Your task to perform on an android device: What's on the menu at Chick-fil-A? Image 0: 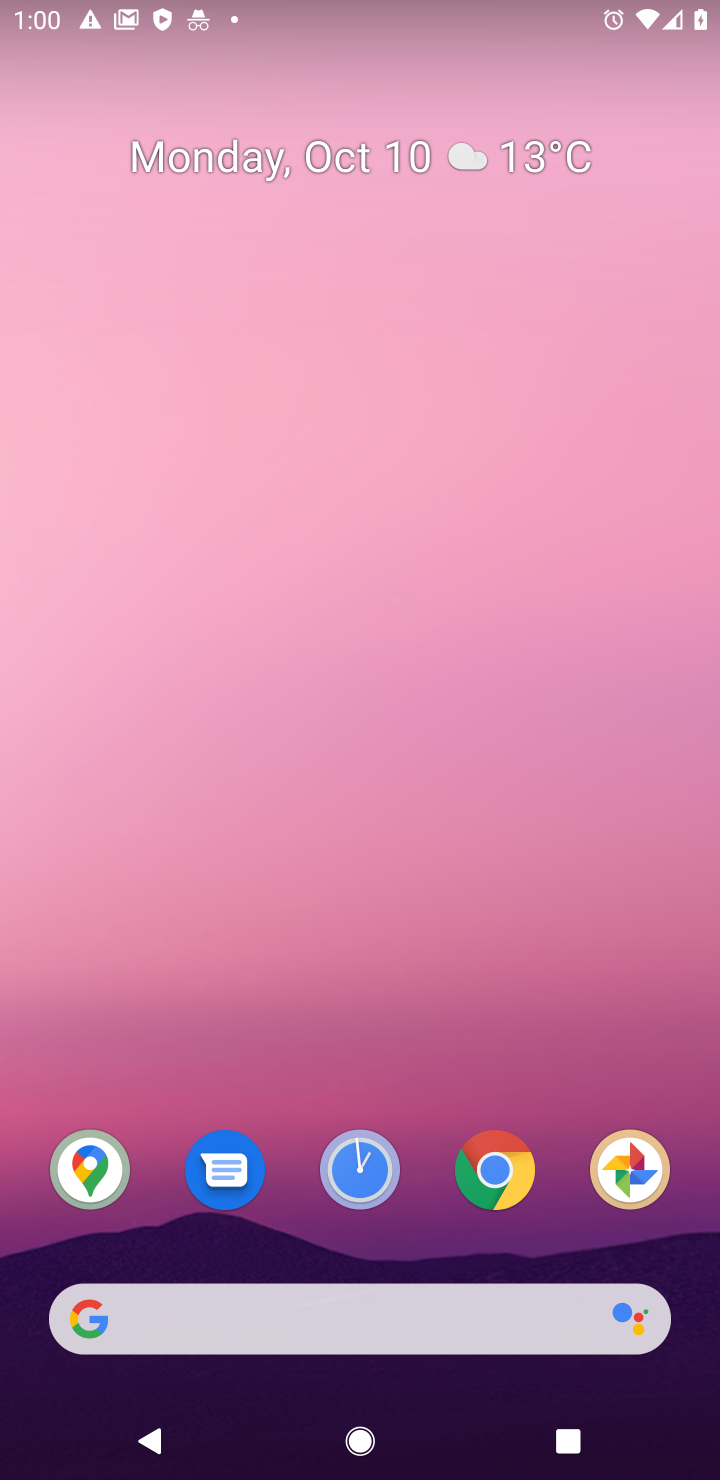
Step 0: click (505, 1176)
Your task to perform on an android device: What's on the menu at Chick-fil-A? Image 1: 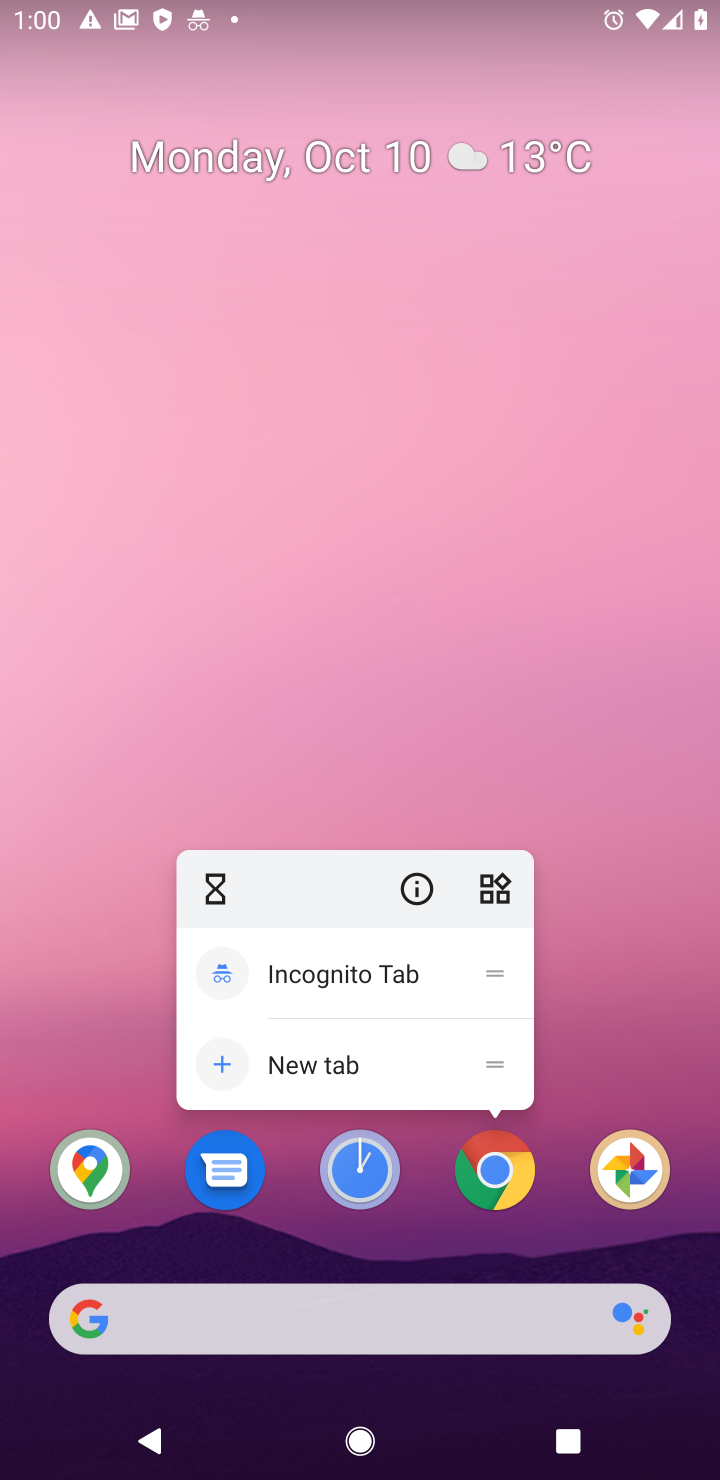
Step 1: click (505, 1176)
Your task to perform on an android device: What's on the menu at Chick-fil-A? Image 2: 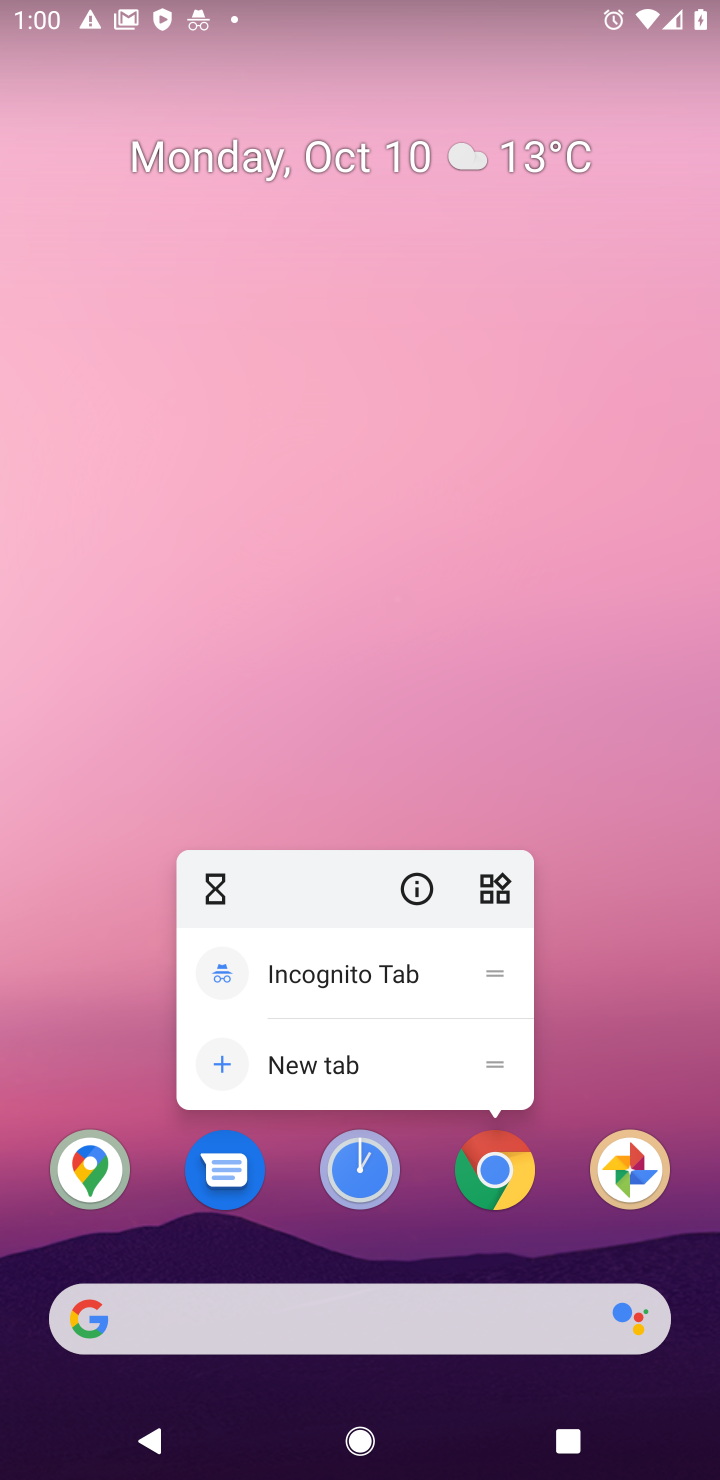
Step 2: click (505, 1176)
Your task to perform on an android device: What's on the menu at Chick-fil-A? Image 3: 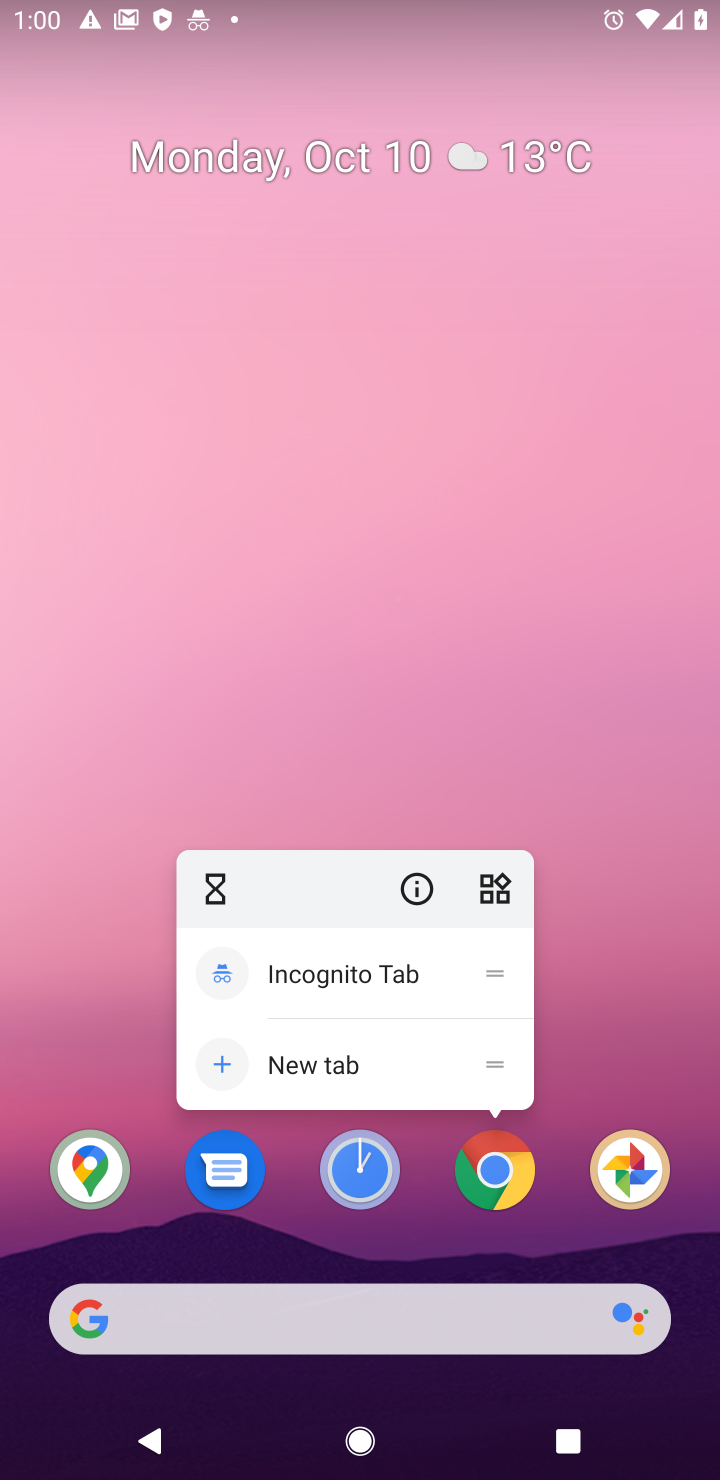
Step 3: click (506, 1190)
Your task to perform on an android device: What's on the menu at Chick-fil-A? Image 4: 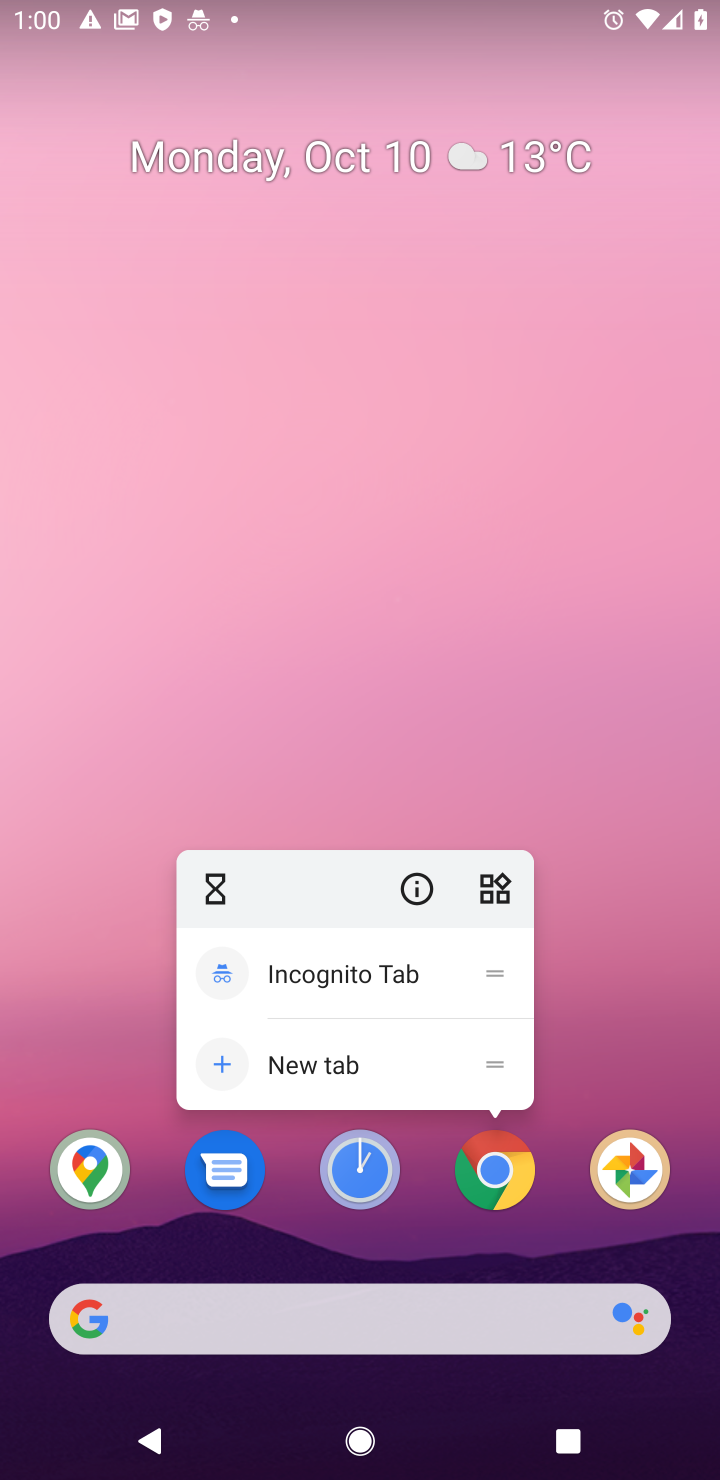
Step 4: click (506, 1190)
Your task to perform on an android device: What's on the menu at Chick-fil-A? Image 5: 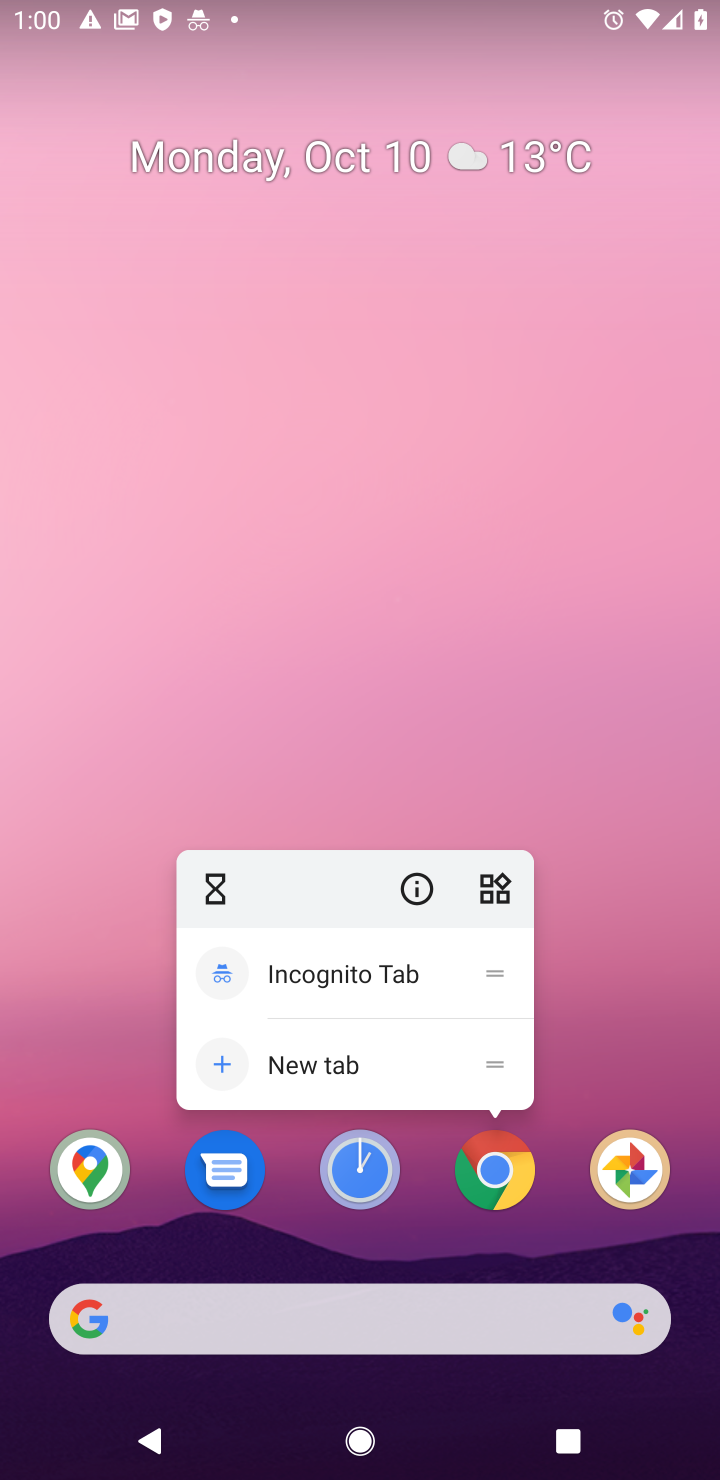
Step 5: click (490, 1176)
Your task to perform on an android device: What's on the menu at Chick-fil-A? Image 6: 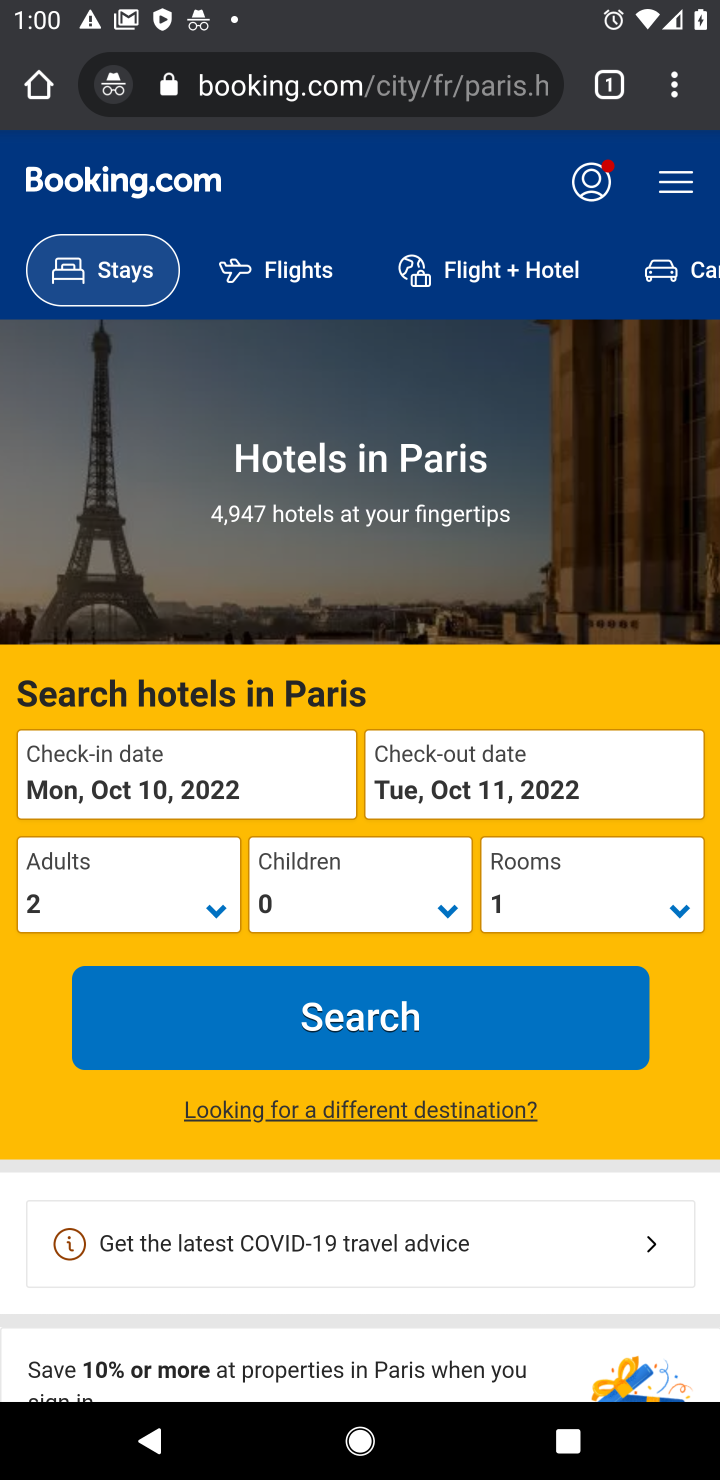
Step 6: click (305, 88)
Your task to perform on an android device: What's on the menu at Chick-fil-A? Image 7: 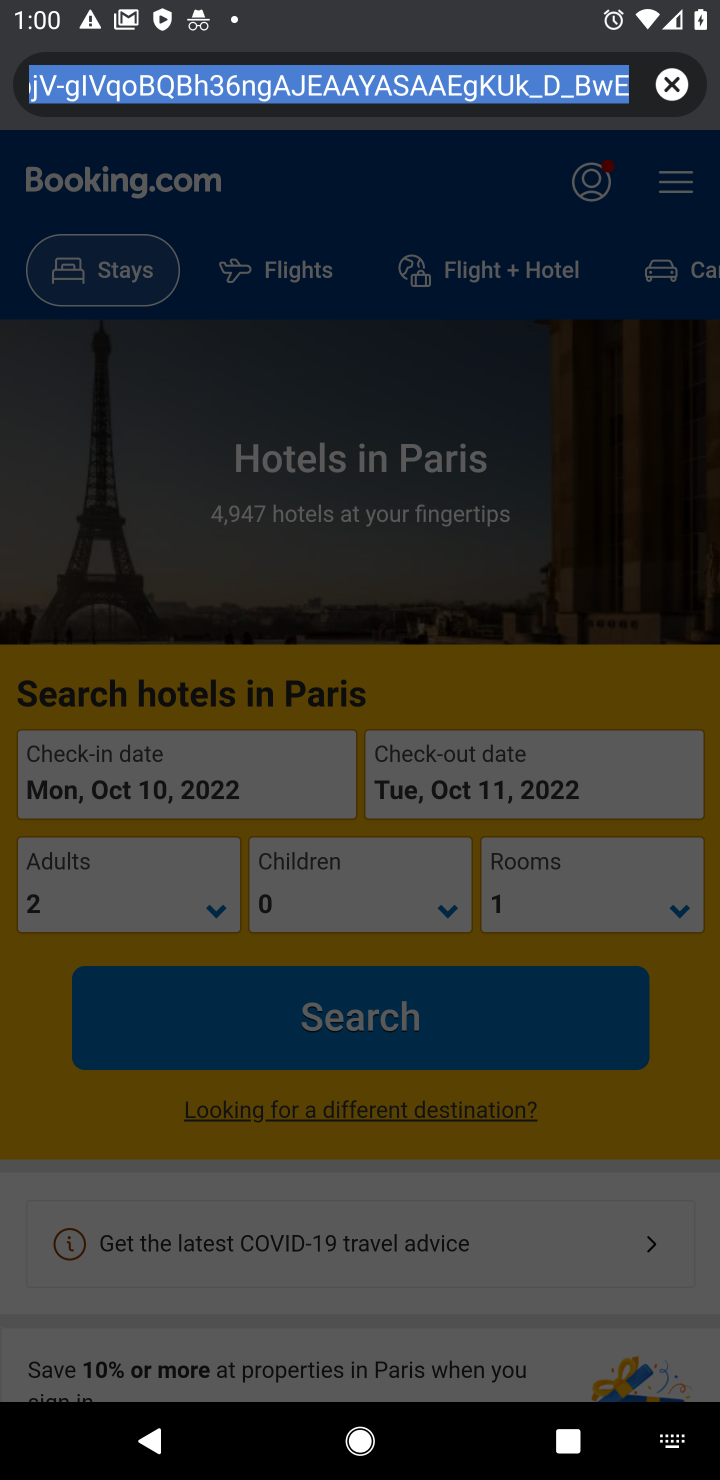
Step 7: click (669, 94)
Your task to perform on an android device: What's on the menu at Chick-fil-A? Image 8: 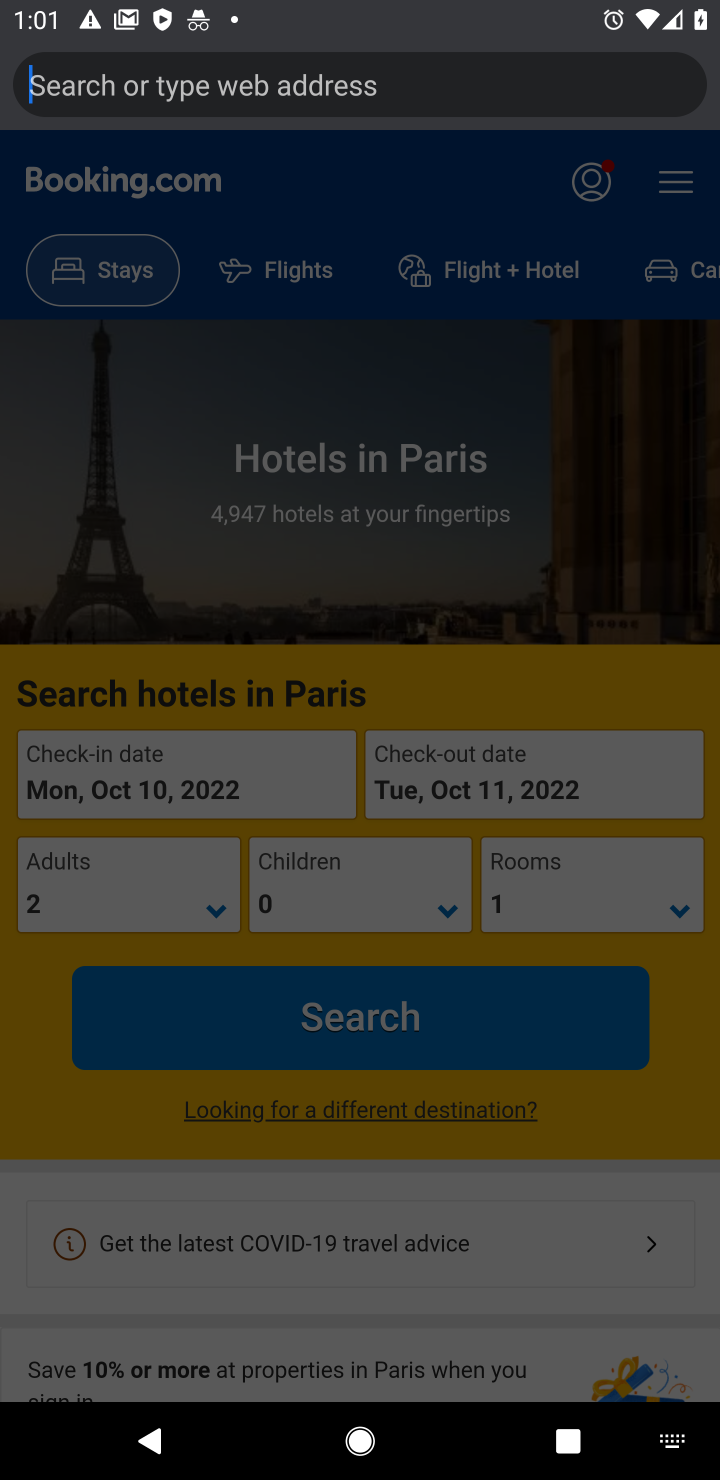
Step 8: type "whats  on the menu at Chick-fil-A?"
Your task to perform on an android device: What's on the menu at Chick-fil-A? Image 9: 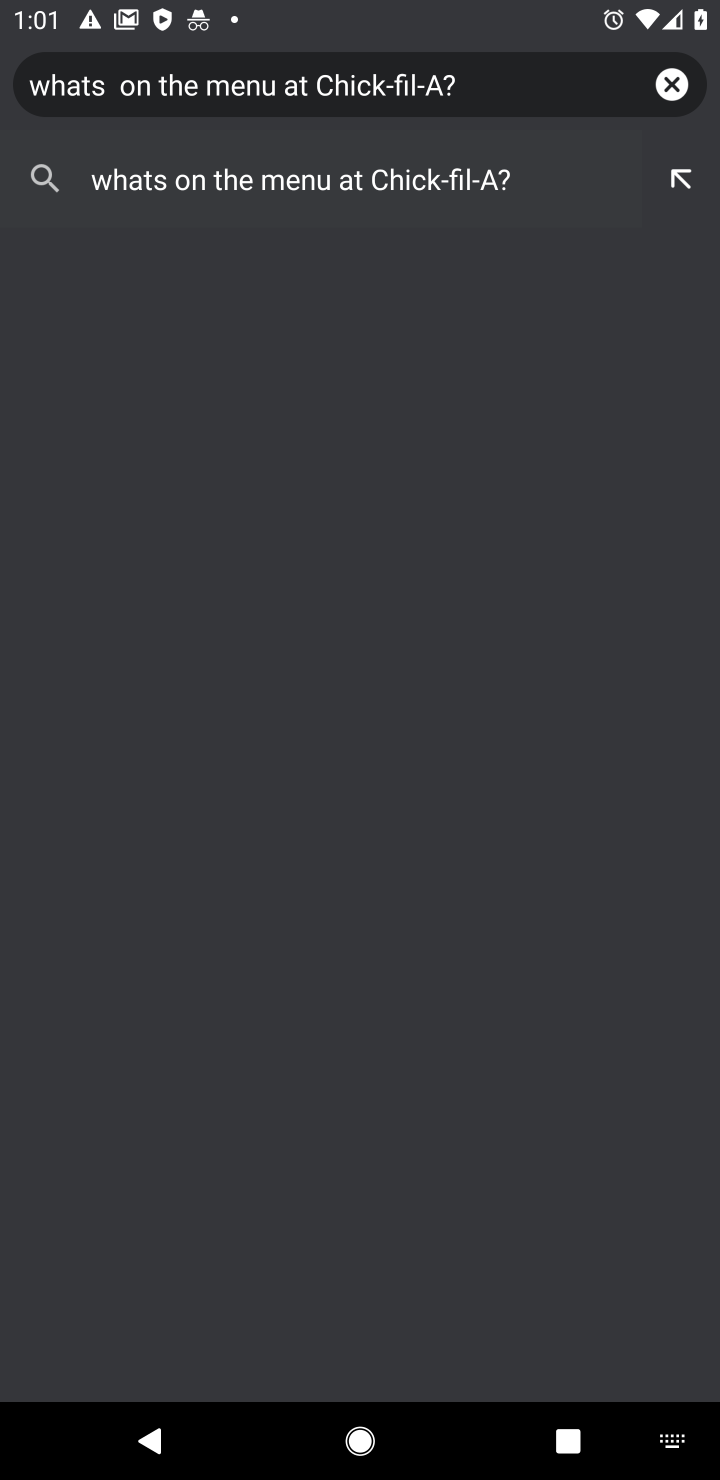
Step 9: type ""
Your task to perform on an android device: What's on the menu at Chick-fil-A? Image 10: 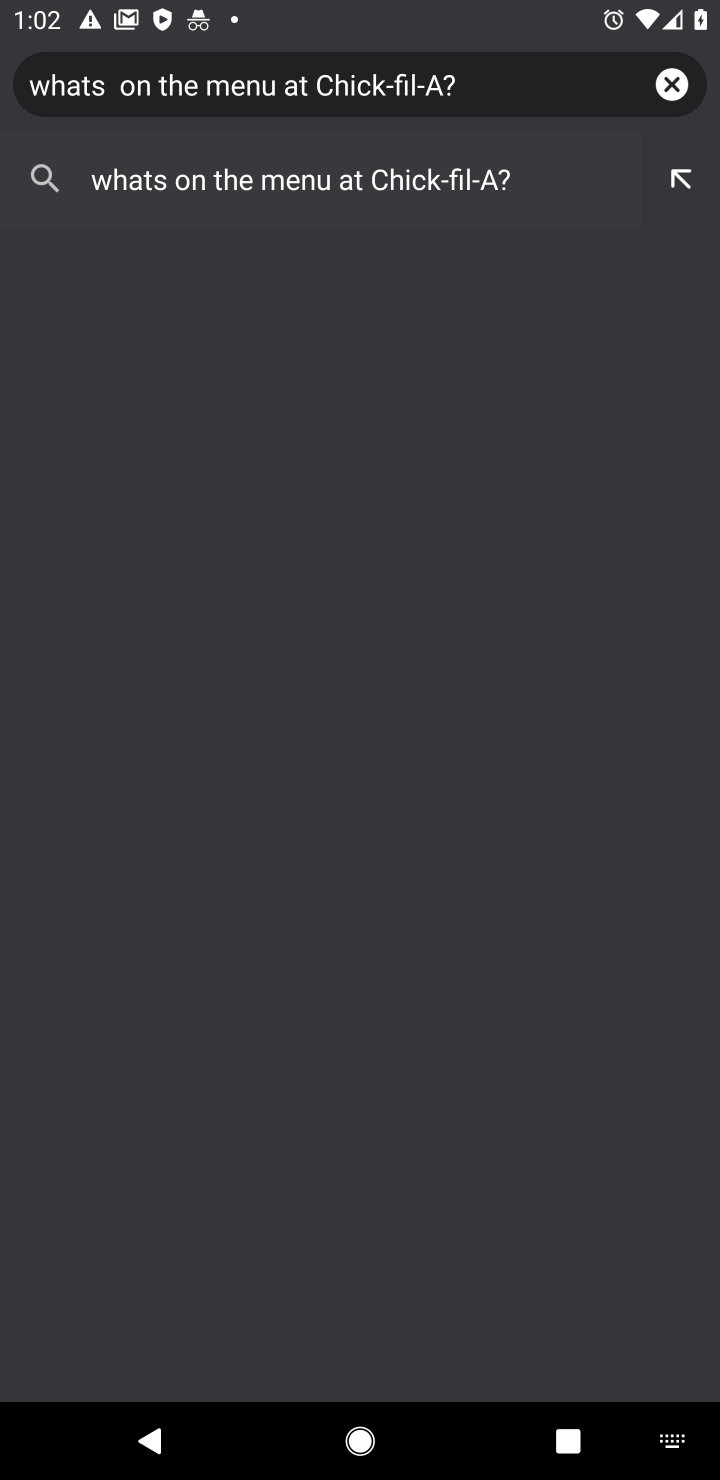
Step 10: click (274, 184)
Your task to perform on an android device: What's on the menu at Chick-fil-A? Image 11: 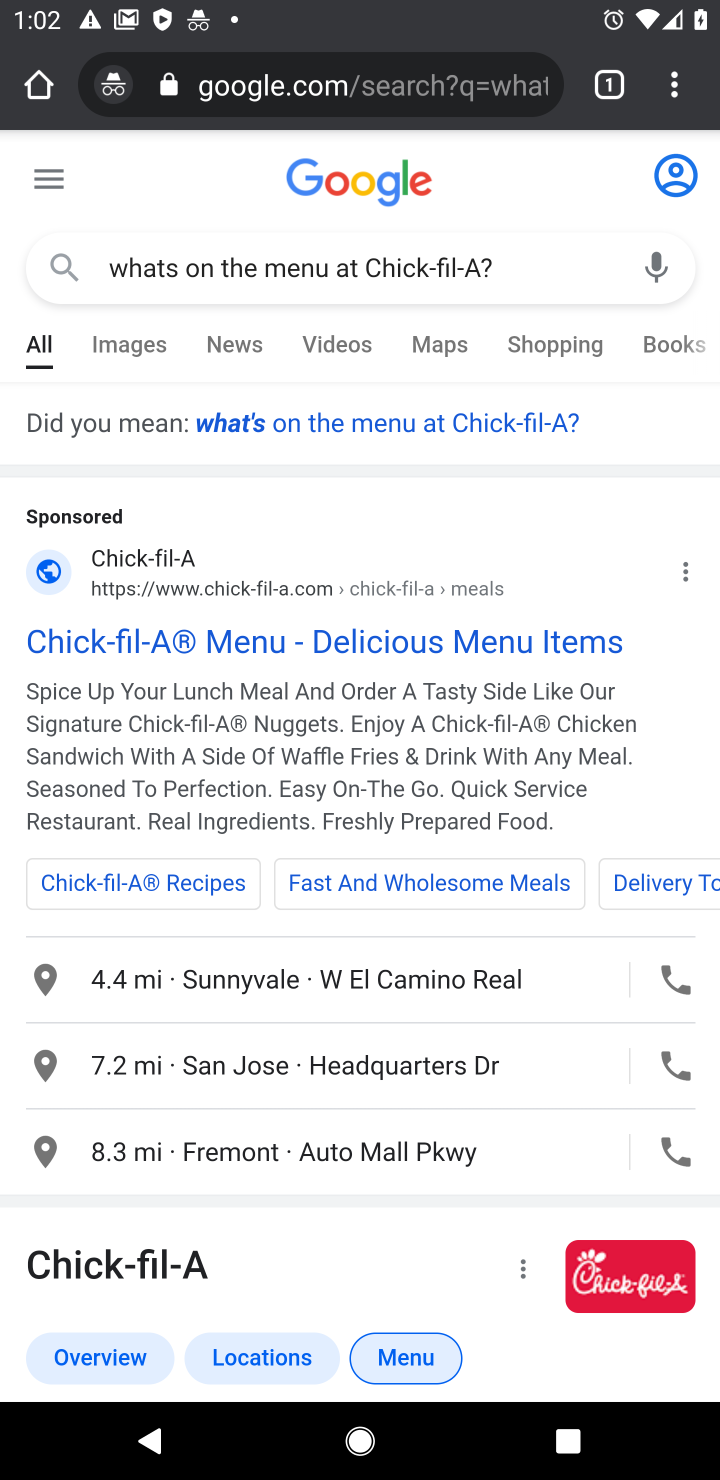
Step 11: click (390, 629)
Your task to perform on an android device: What's on the menu at Chick-fil-A? Image 12: 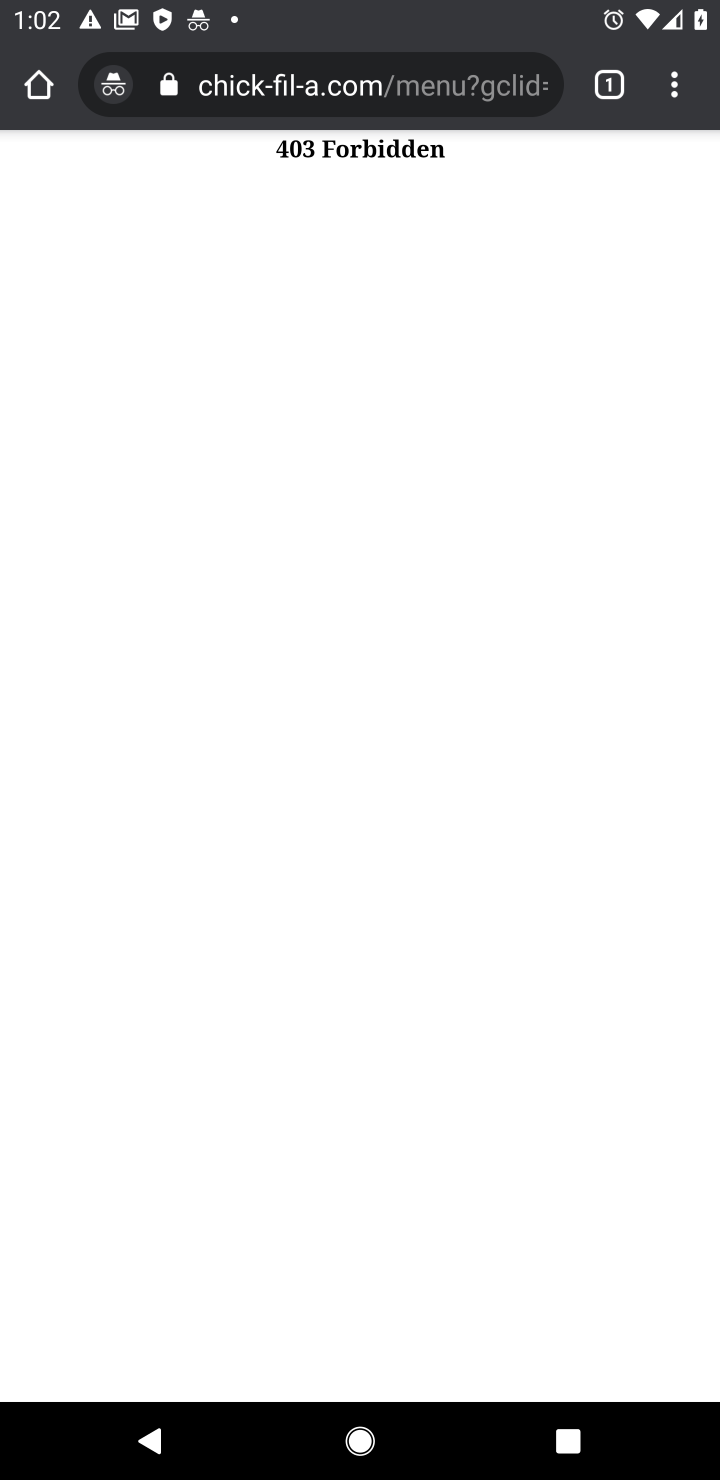
Step 12: task complete